Your task to perform on an android device: Set the phone to "Do not disturb". Image 0: 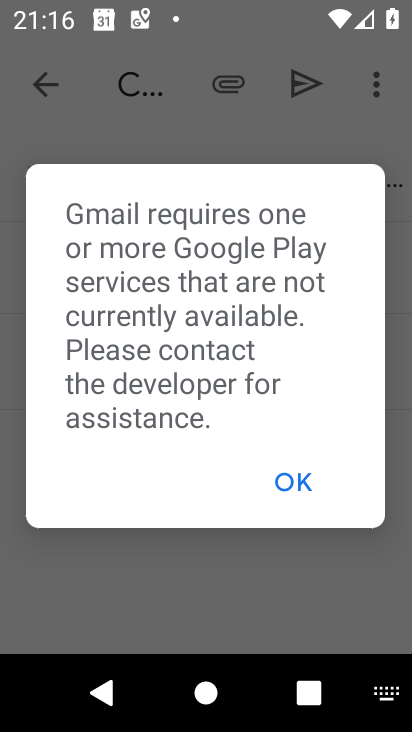
Step 0: press home button
Your task to perform on an android device: Set the phone to "Do not disturb". Image 1: 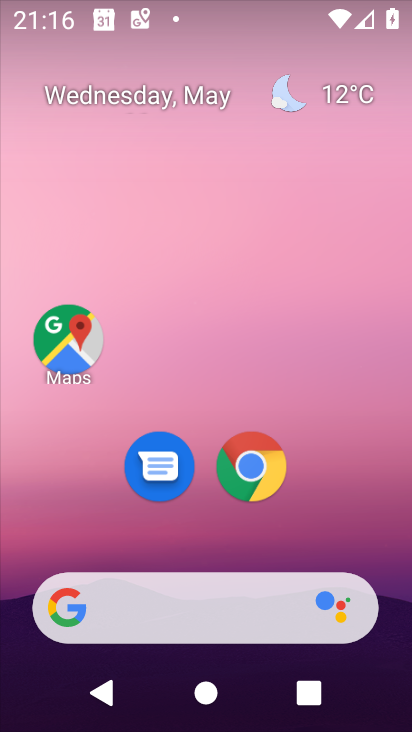
Step 1: drag from (190, 5) to (253, 498)
Your task to perform on an android device: Set the phone to "Do not disturb". Image 2: 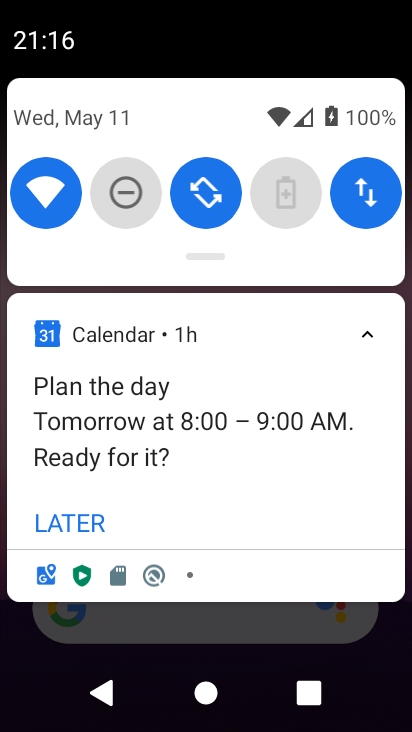
Step 2: click (130, 195)
Your task to perform on an android device: Set the phone to "Do not disturb". Image 3: 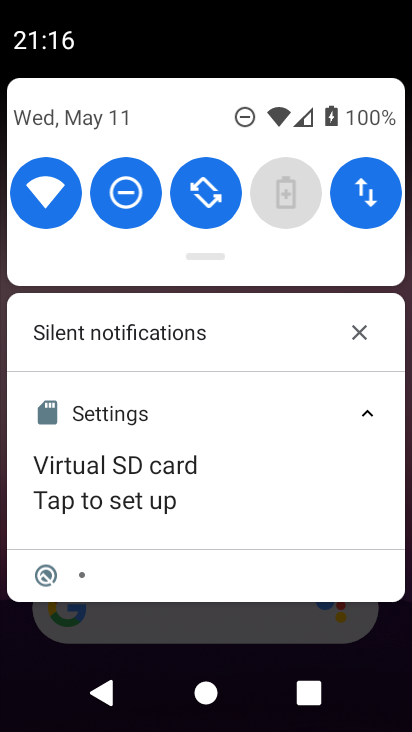
Step 3: task complete